Your task to perform on an android device: Open ESPN.com Image 0: 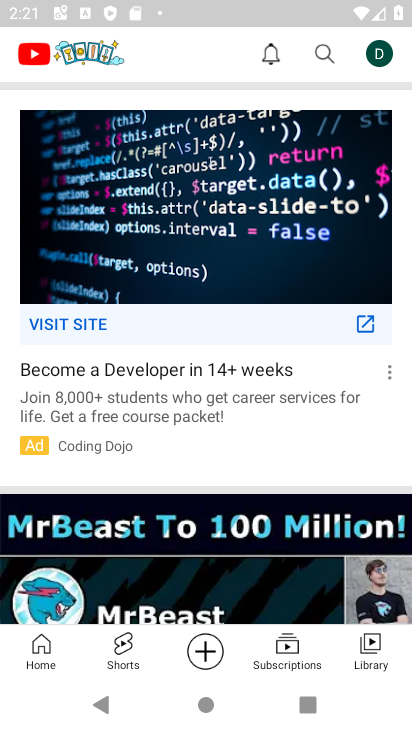
Step 0: press home button
Your task to perform on an android device: Open ESPN.com Image 1: 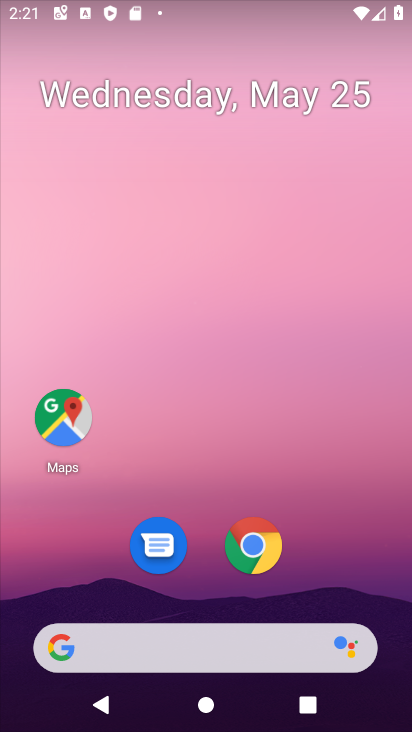
Step 1: click (329, 569)
Your task to perform on an android device: Open ESPN.com Image 2: 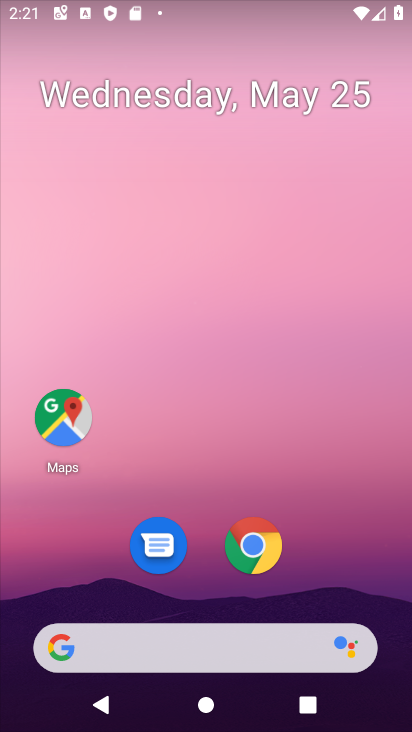
Step 2: click (238, 655)
Your task to perform on an android device: Open ESPN.com Image 3: 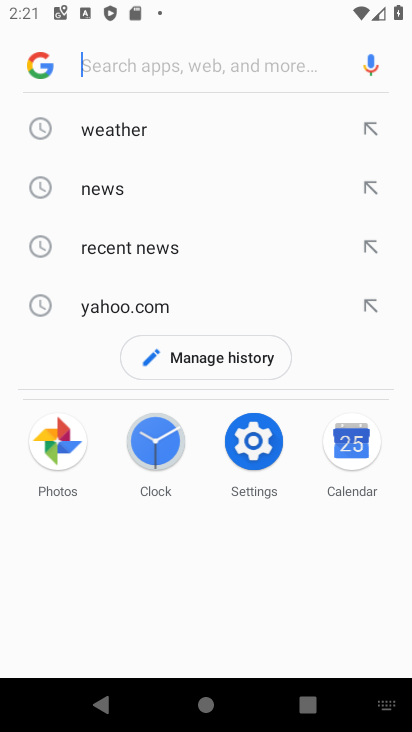
Step 3: type "espn.com"
Your task to perform on an android device: Open ESPN.com Image 4: 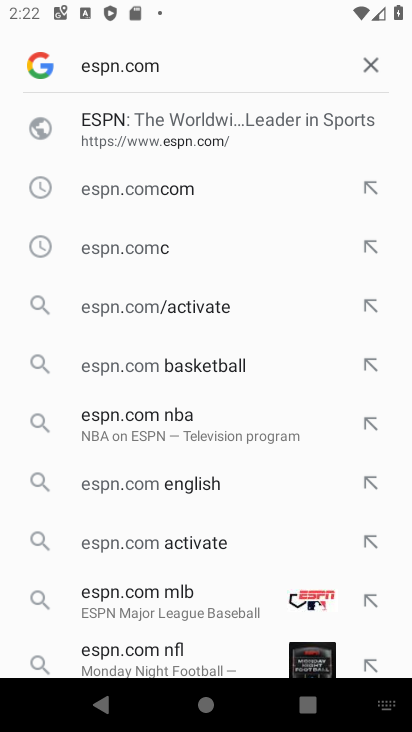
Step 4: click (104, 125)
Your task to perform on an android device: Open ESPN.com Image 5: 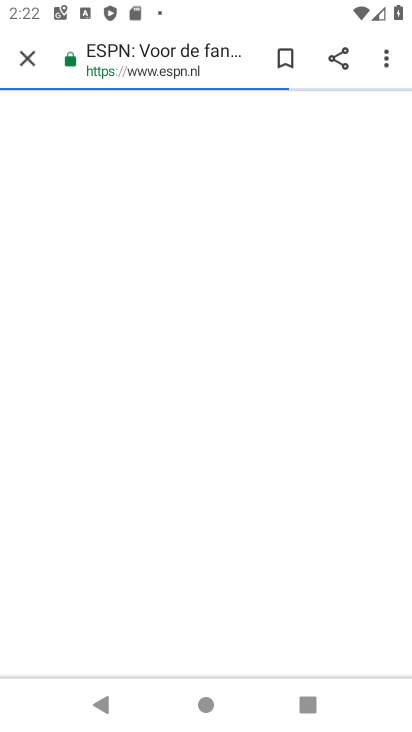
Step 5: task complete